Your task to perform on an android device: Open calendar and show me the fourth week of next month Image 0: 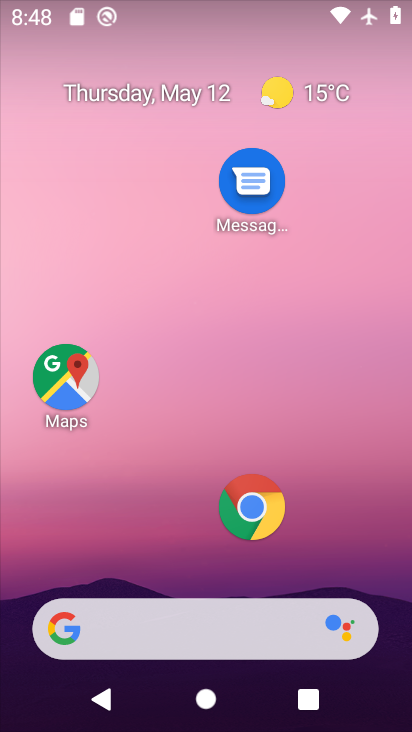
Step 0: drag from (269, 565) to (284, 16)
Your task to perform on an android device: Open calendar and show me the fourth week of next month Image 1: 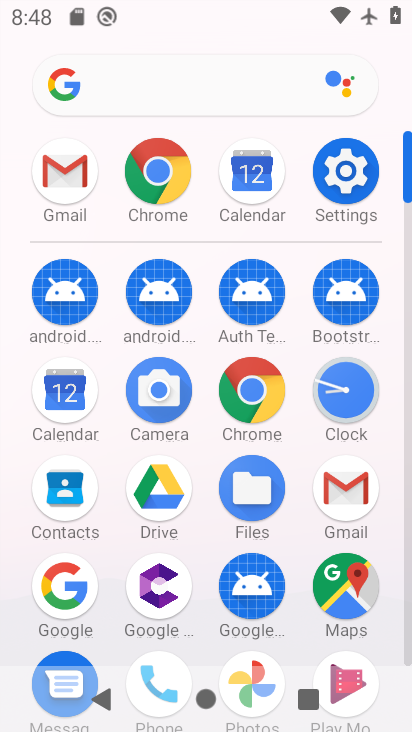
Step 1: click (252, 152)
Your task to perform on an android device: Open calendar and show me the fourth week of next month Image 2: 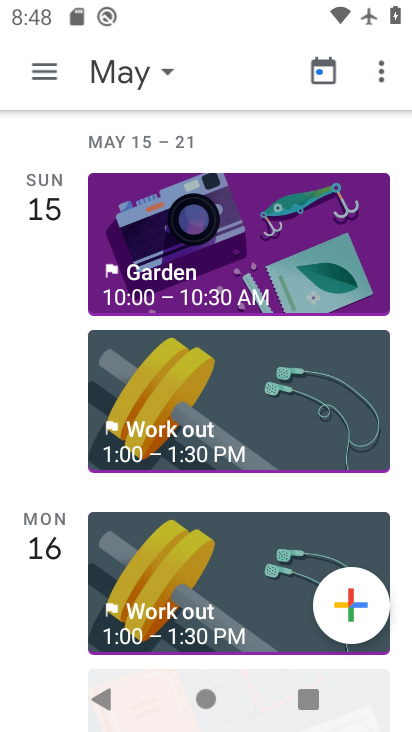
Step 2: click (142, 79)
Your task to perform on an android device: Open calendar and show me the fourth week of next month Image 3: 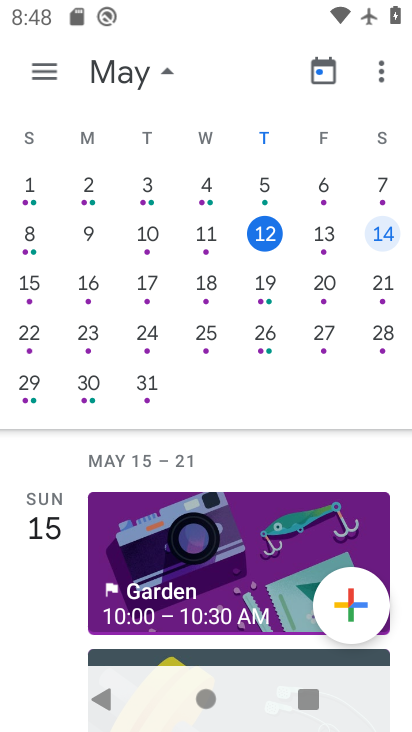
Step 3: drag from (365, 252) to (5, 234)
Your task to perform on an android device: Open calendar and show me the fourth week of next month Image 4: 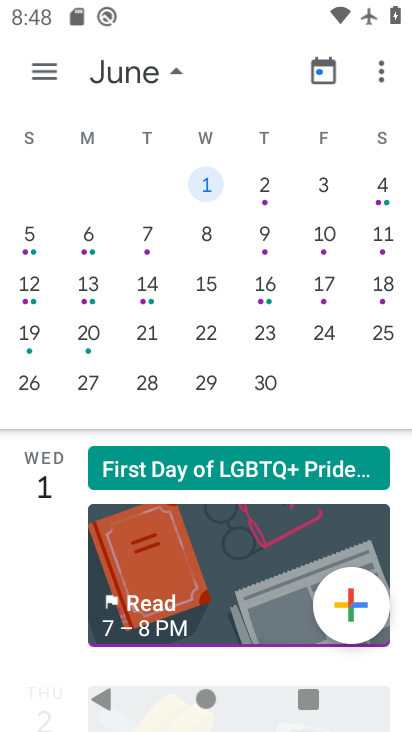
Step 4: click (36, 335)
Your task to perform on an android device: Open calendar and show me the fourth week of next month Image 5: 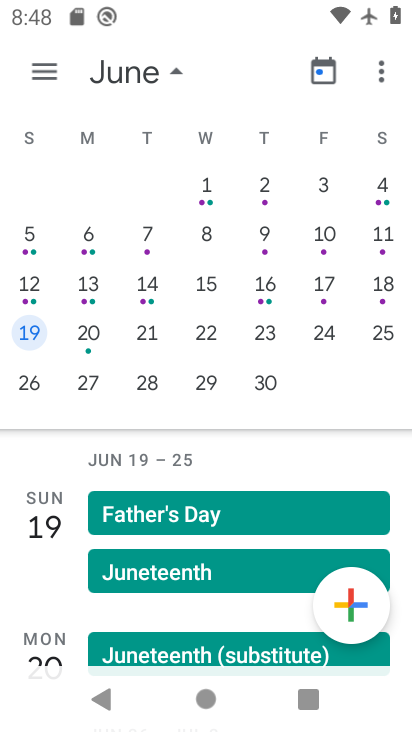
Step 5: task complete